Your task to perform on an android device: open app "Skype" Image 0: 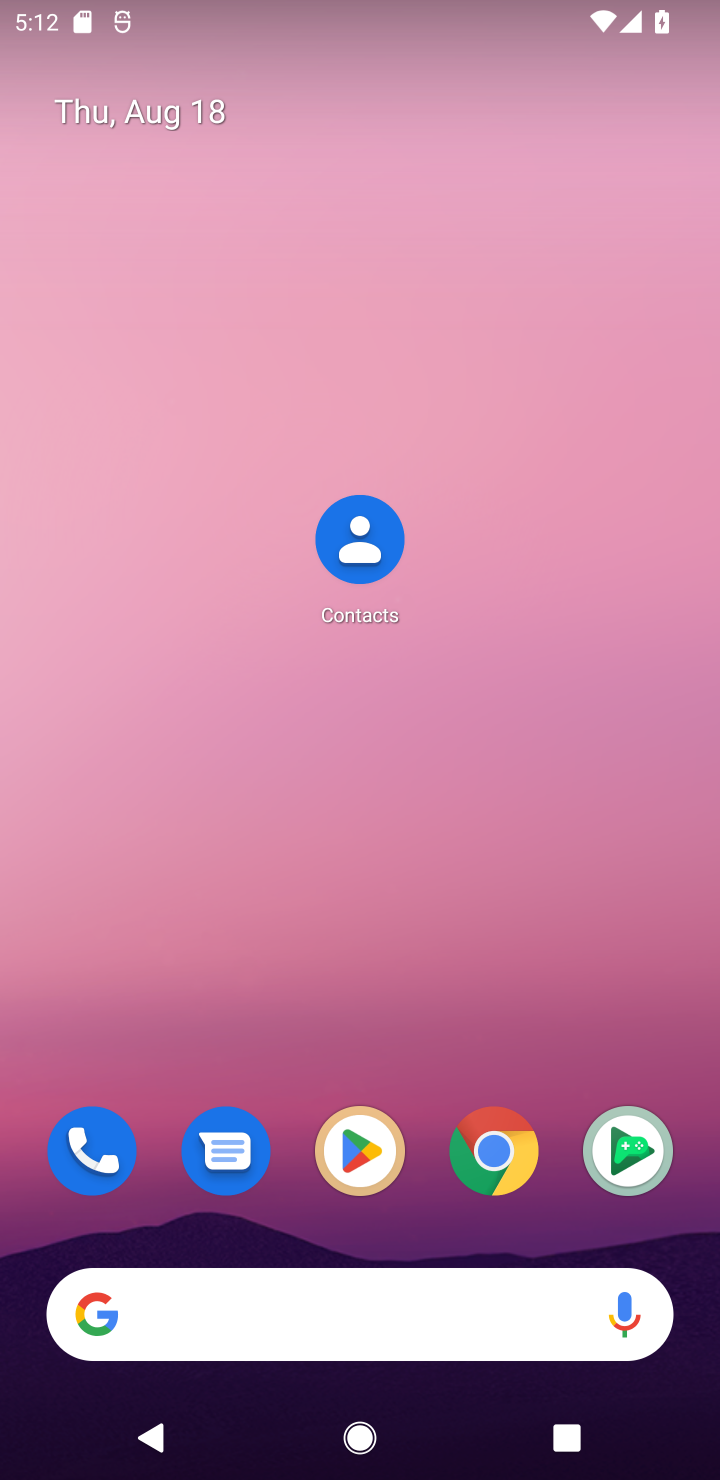
Step 0: click (355, 1171)
Your task to perform on an android device: open app "Skype" Image 1: 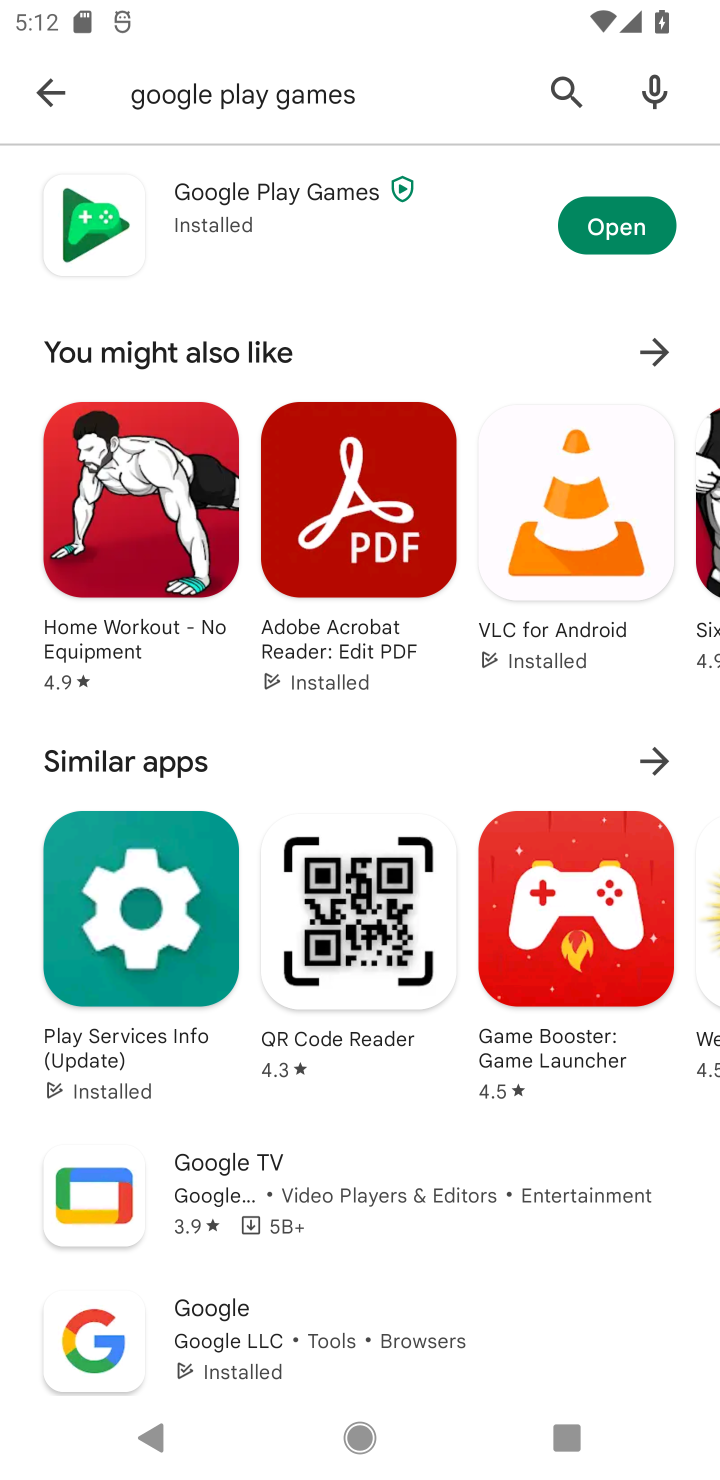
Step 1: click (575, 118)
Your task to perform on an android device: open app "Skype" Image 2: 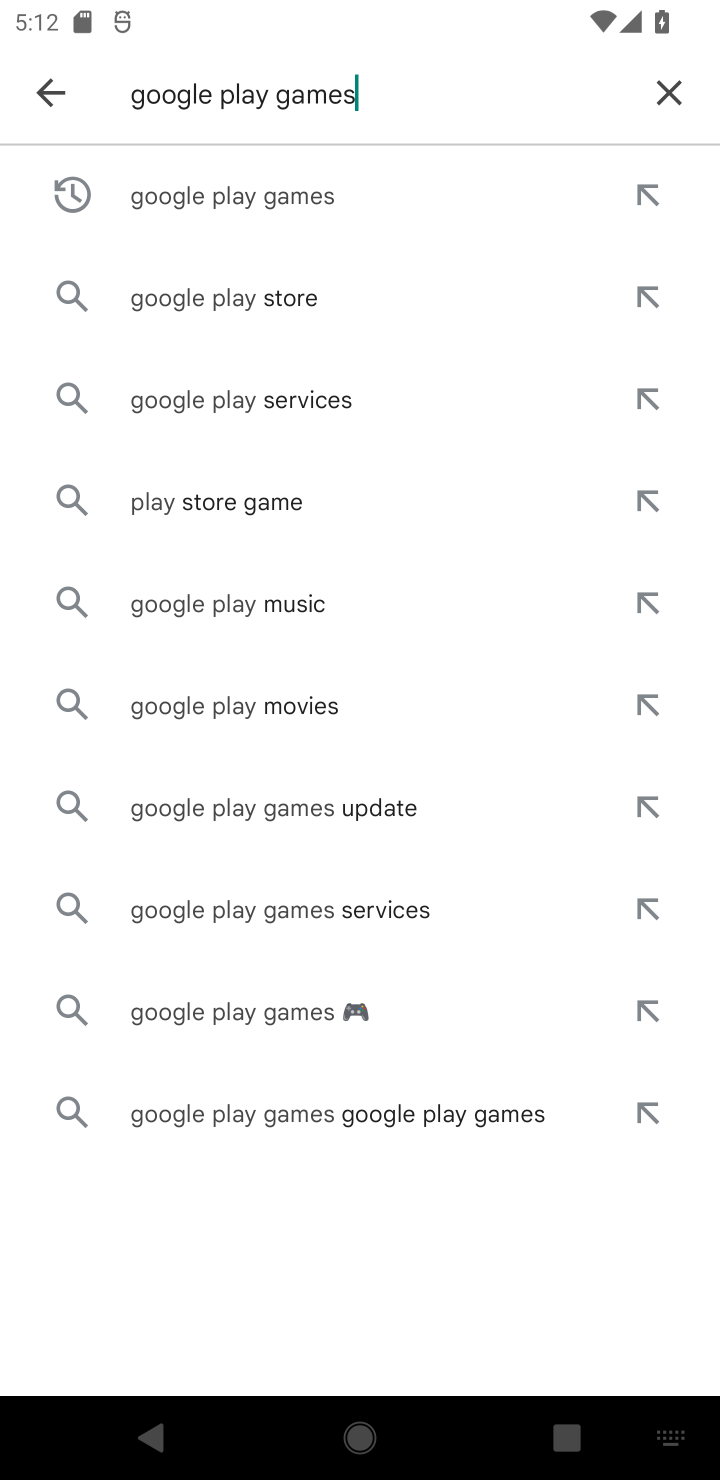
Step 2: click (682, 108)
Your task to perform on an android device: open app "Skype" Image 3: 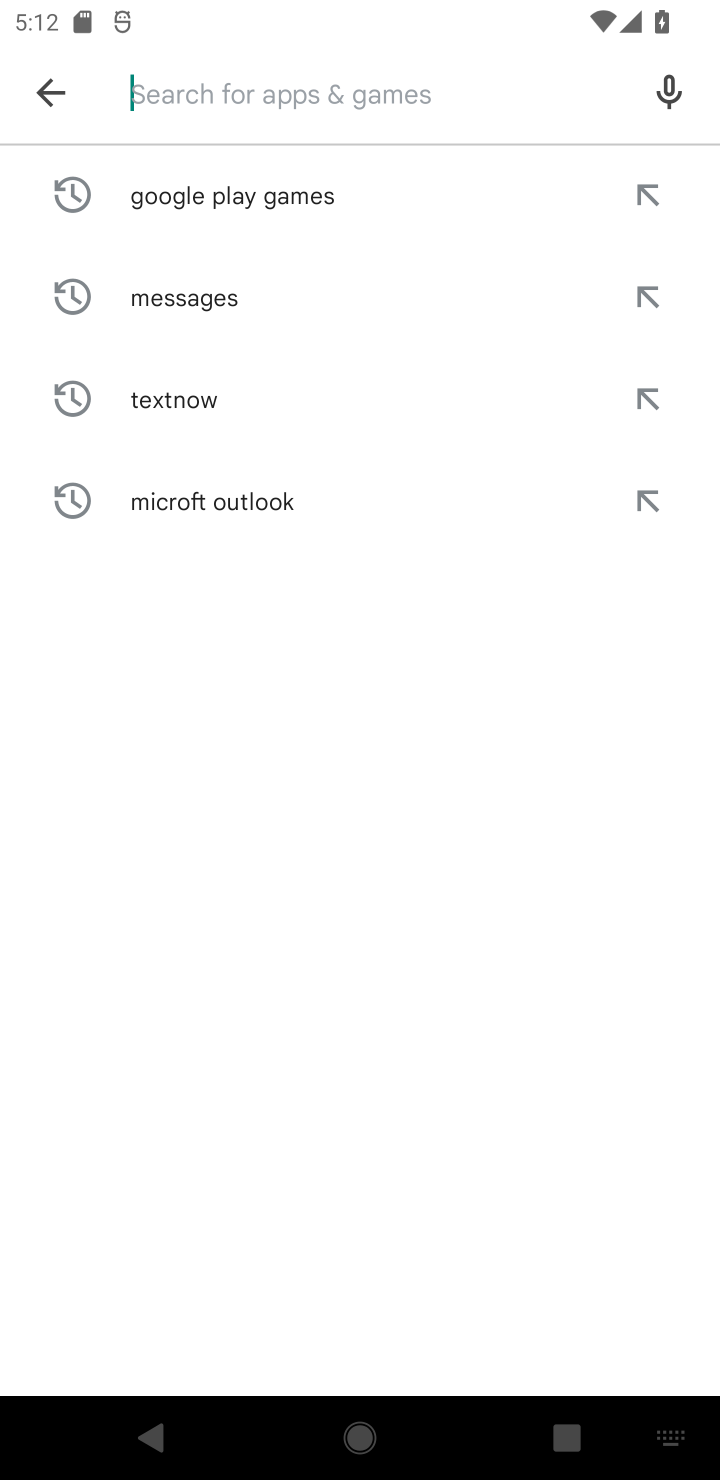
Step 3: type "skype"
Your task to perform on an android device: open app "Skype" Image 4: 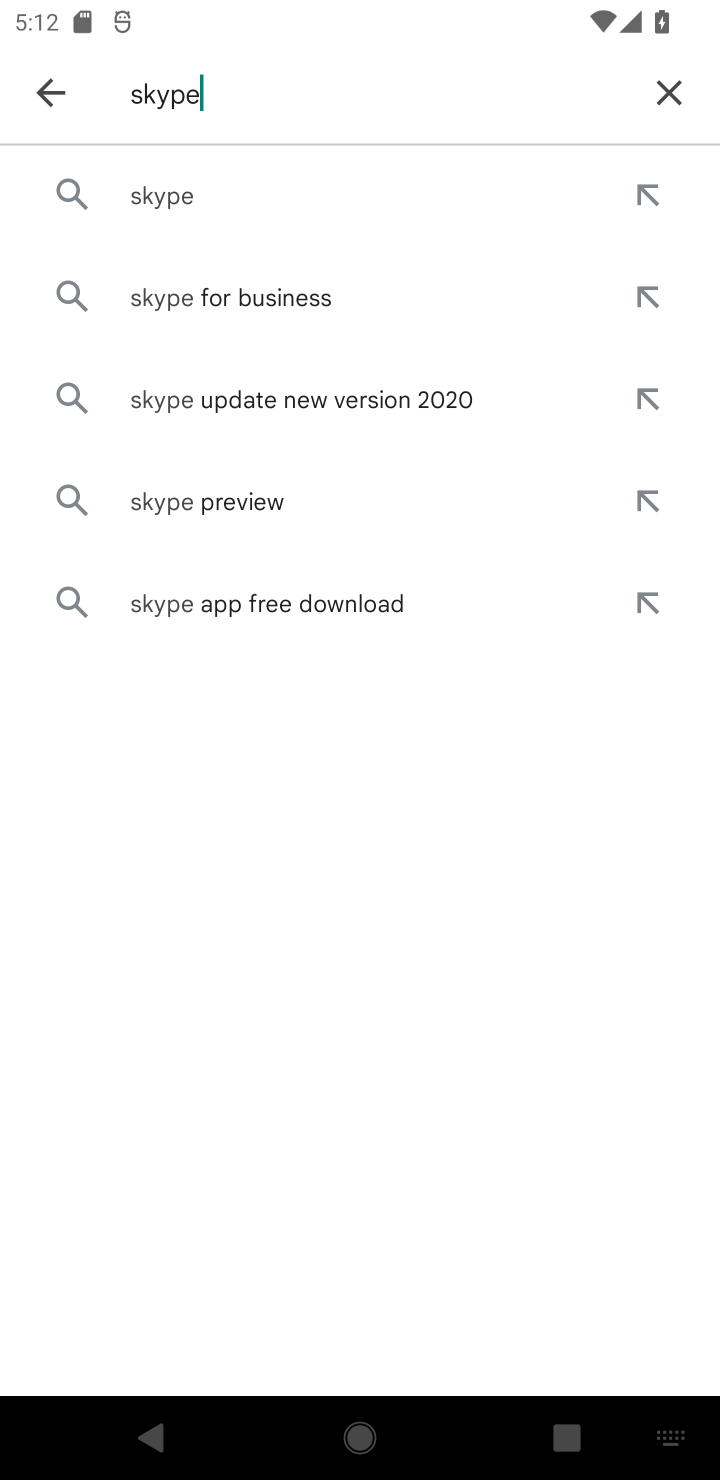
Step 4: click (366, 191)
Your task to perform on an android device: open app "Skype" Image 5: 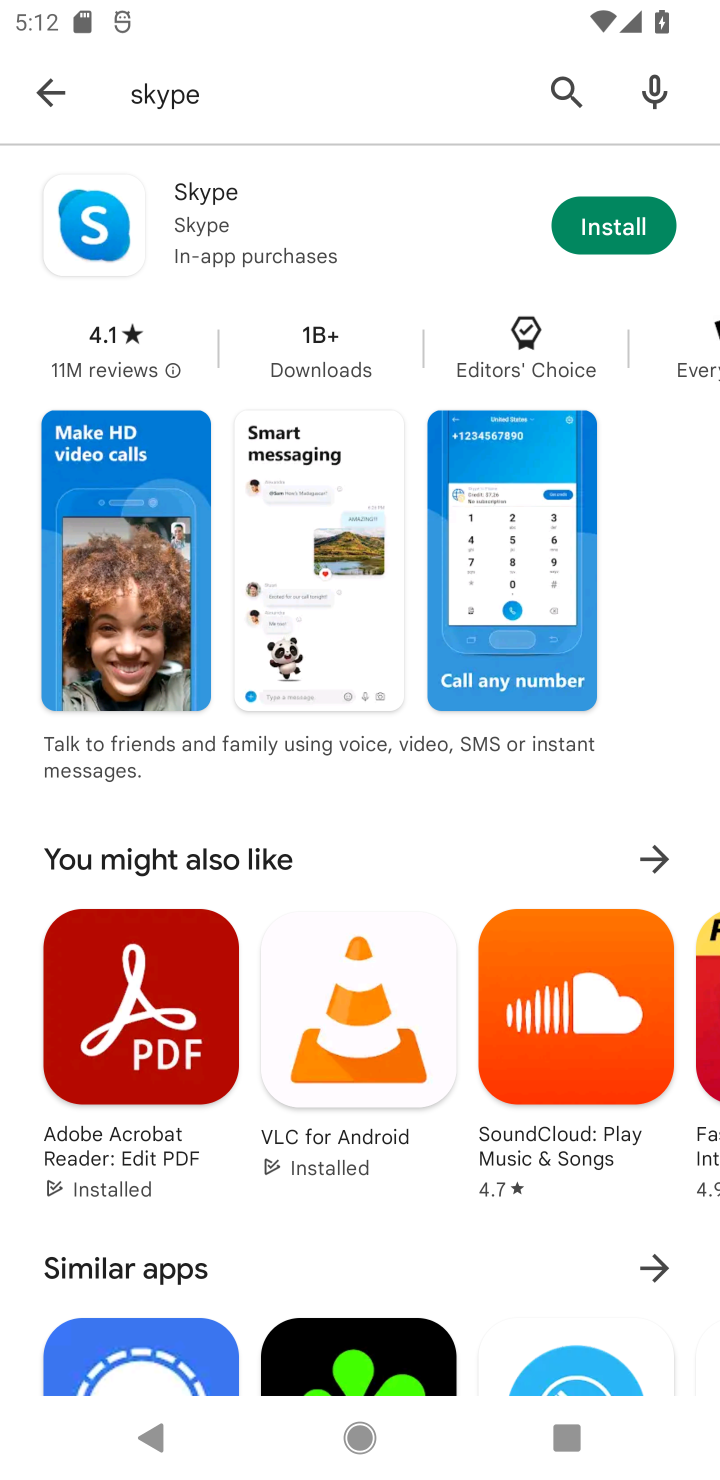
Step 5: click (607, 229)
Your task to perform on an android device: open app "Skype" Image 6: 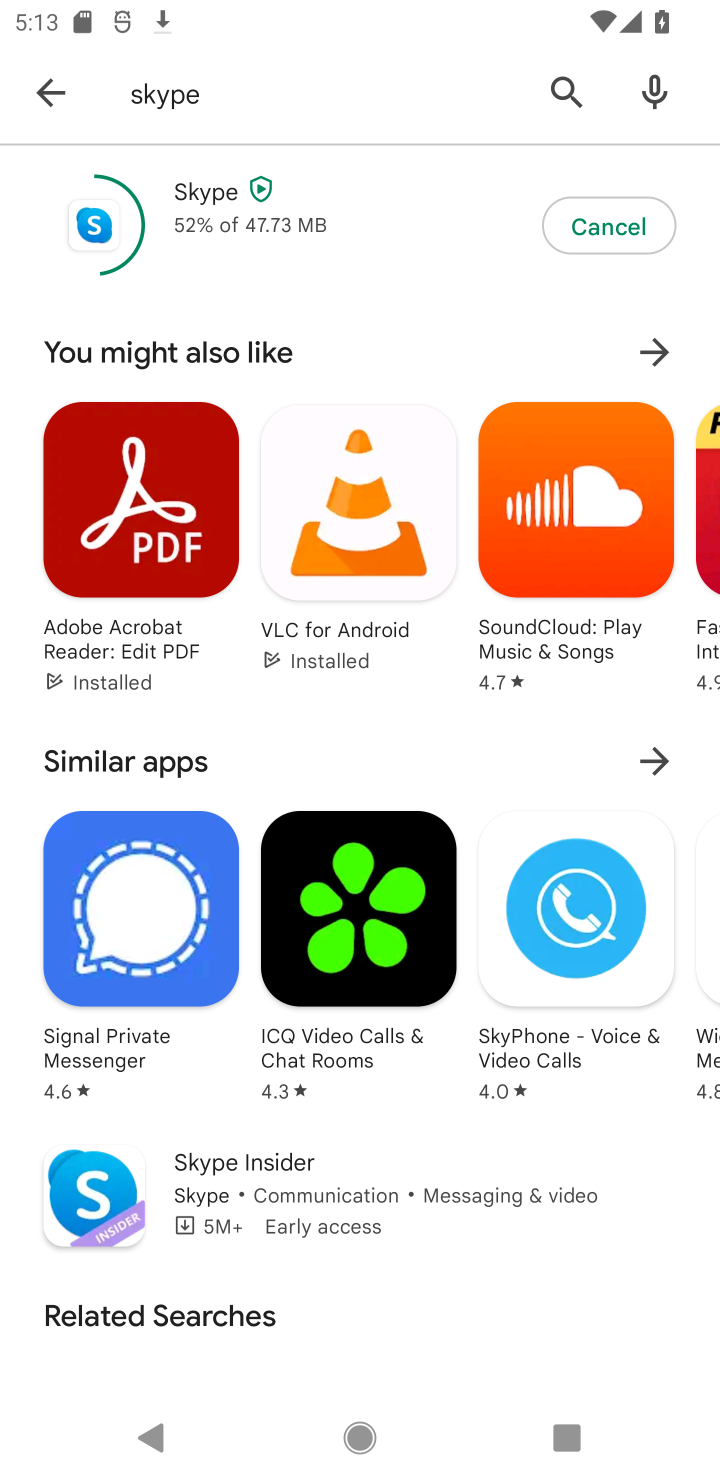
Step 6: task complete